Your task to perform on an android device: turn smart compose on in the gmail app Image 0: 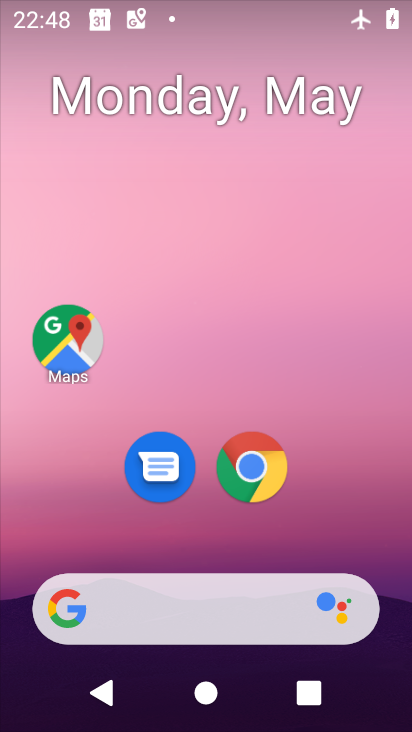
Step 0: drag from (302, 534) to (258, 207)
Your task to perform on an android device: turn smart compose on in the gmail app Image 1: 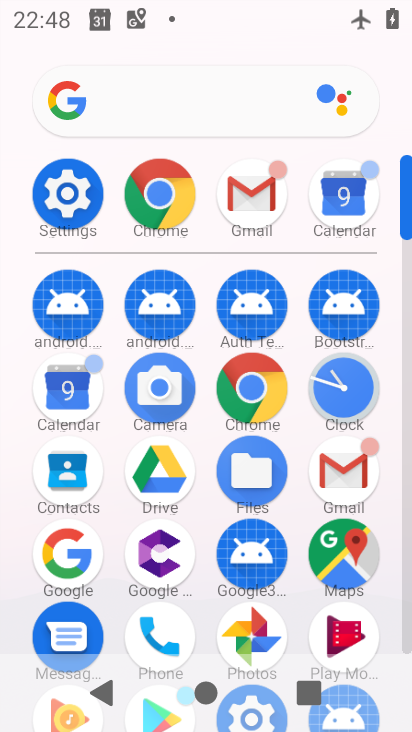
Step 1: click (343, 454)
Your task to perform on an android device: turn smart compose on in the gmail app Image 2: 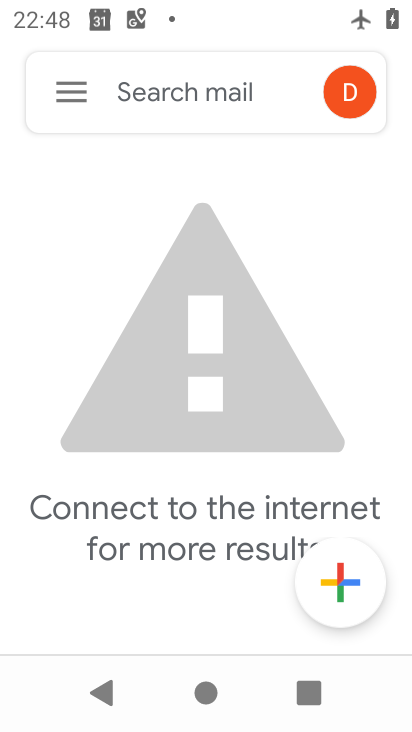
Step 2: click (67, 99)
Your task to perform on an android device: turn smart compose on in the gmail app Image 3: 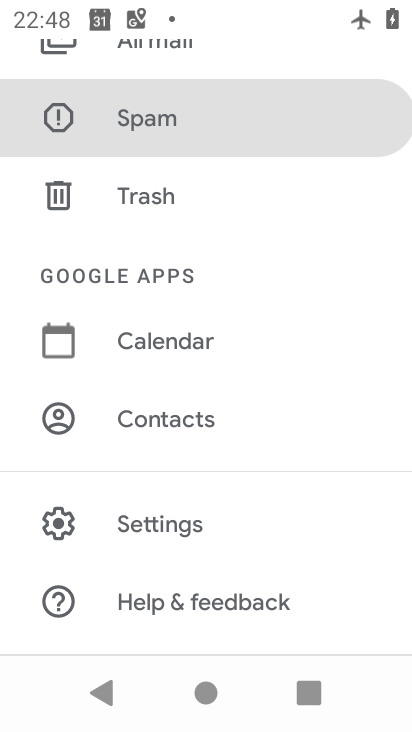
Step 3: click (150, 493)
Your task to perform on an android device: turn smart compose on in the gmail app Image 4: 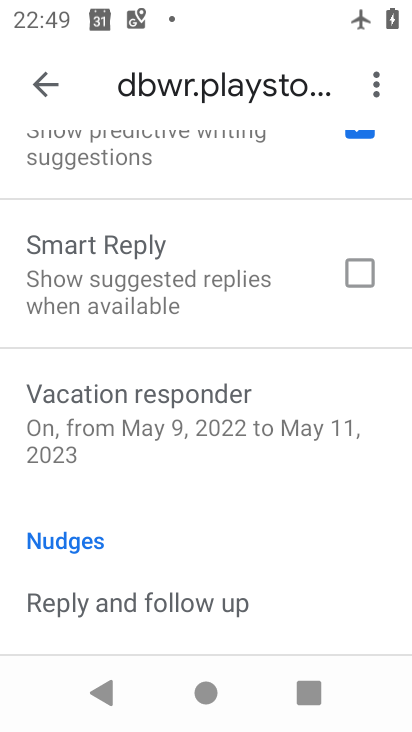
Step 4: task complete